Your task to perform on an android device: Go to Google maps Image 0: 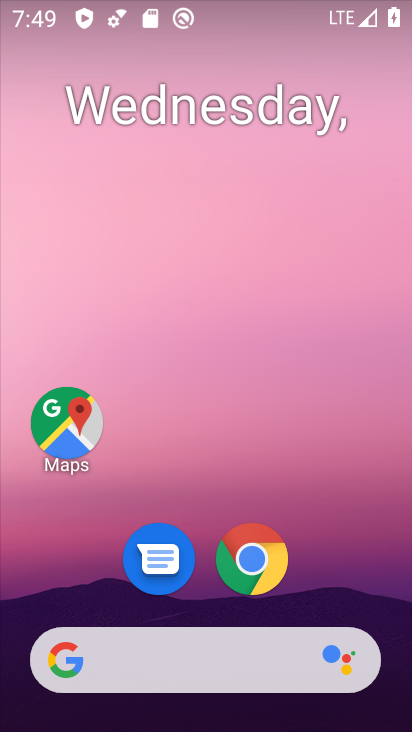
Step 0: click (69, 417)
Your task to perform on an android device: Go to Google maps Image 1: 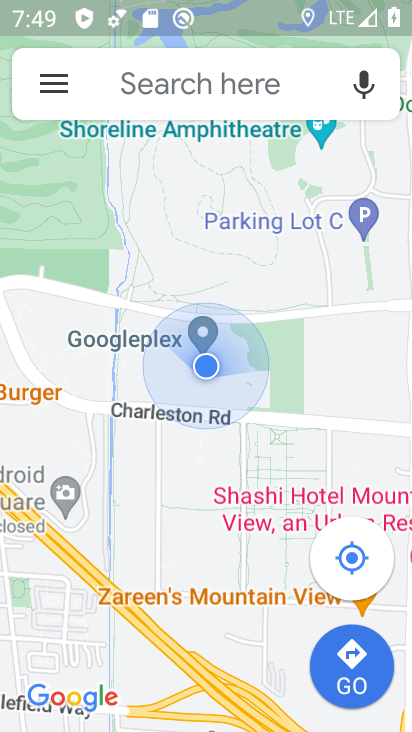
Step 1: task complete